Your task to perform on an android device: Do I have any events today? Image 0: 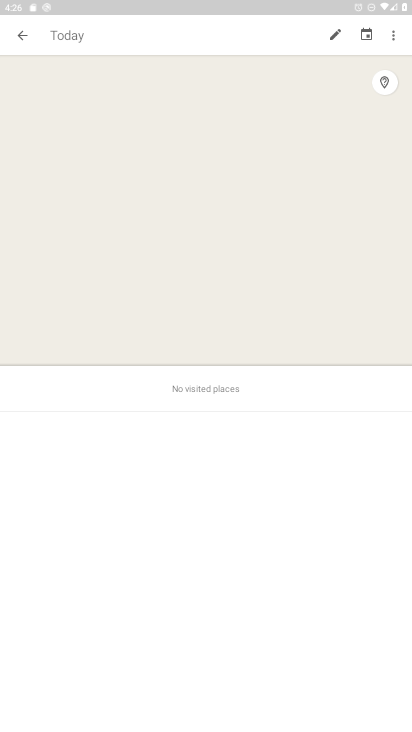
Step 0: click (144, 660)
Your task to perform on an android device: Do I have any events today? Image 1: 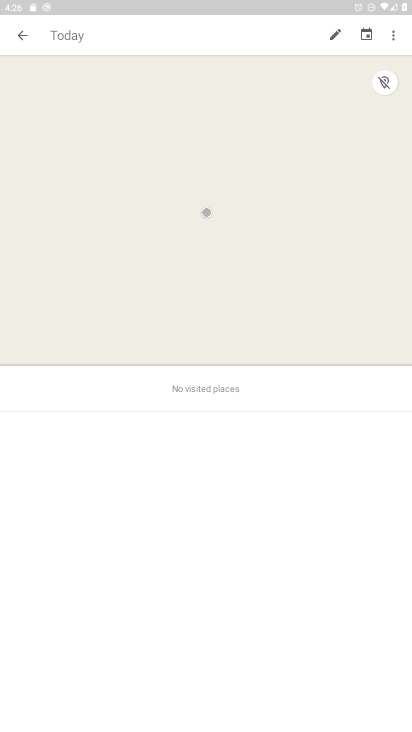
Step 1: press home button
Your task to perform on an android device: Do I have any events today? Image 2: 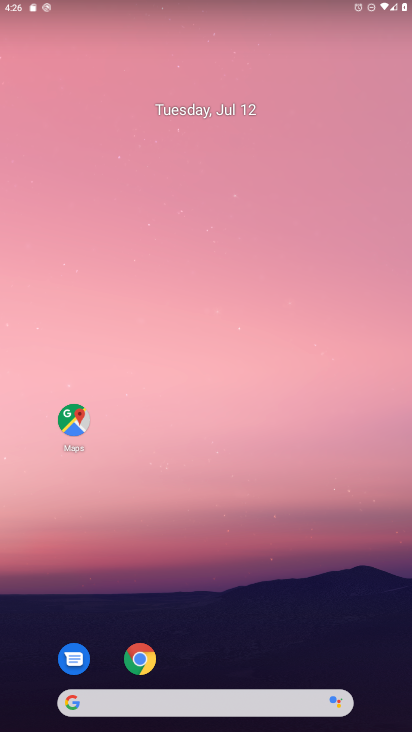
Step 2: drag from (205, 448) to (236, 123)
Your task to perform on an android device: Do I have any events today? Image 3: 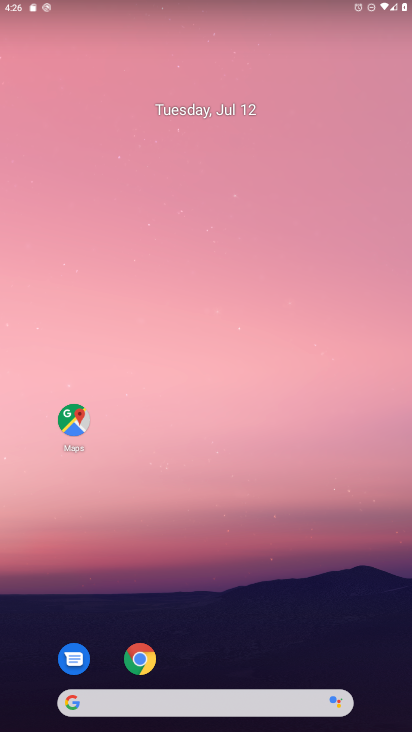
Step 3: click (268, 120)
Your task to perform on an android device: Do I have any events today? Image 4: 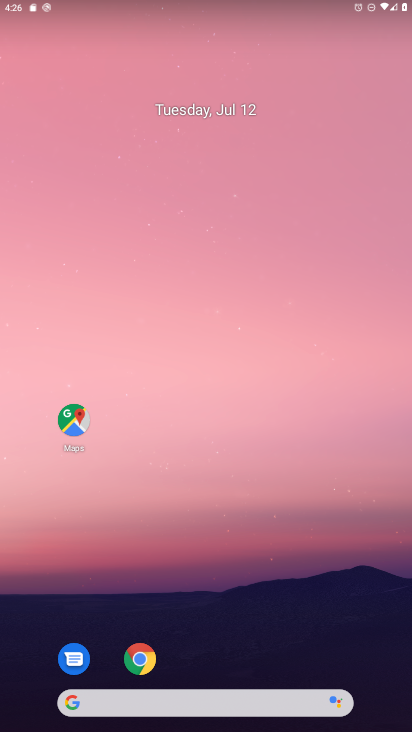
Step 4: drag from (190, 628) to (219, 202)
Your task to perform on an android device: Do I have any events today? Image 5: 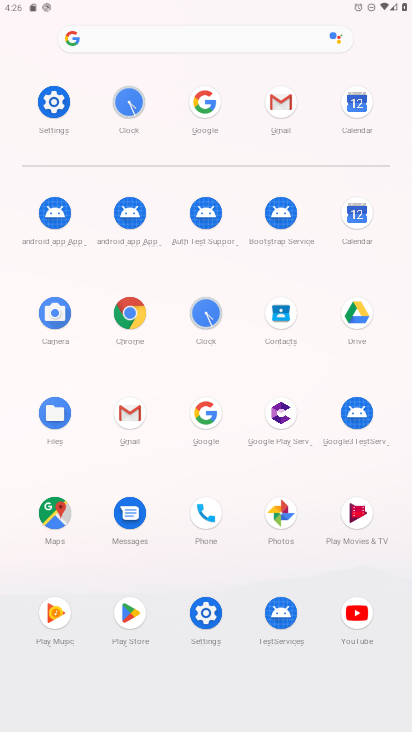
Step 5: click (349, 219)
Your task to perform on an android device: Do I have any events today? Image 6: 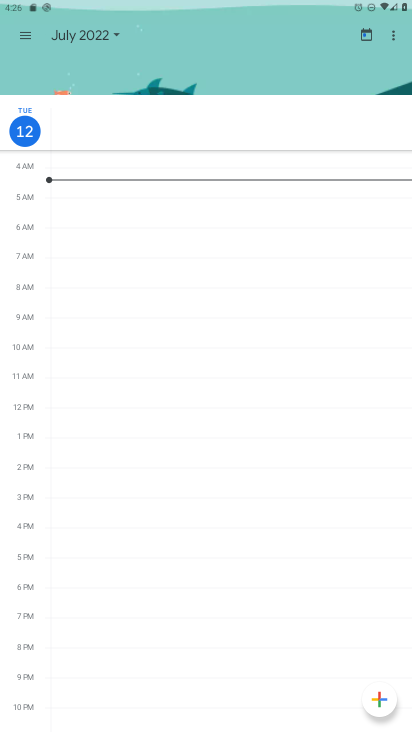
Step 6: task complete